Your task to perform on an android device: turn on showing notifications on the lock screen Image 0: 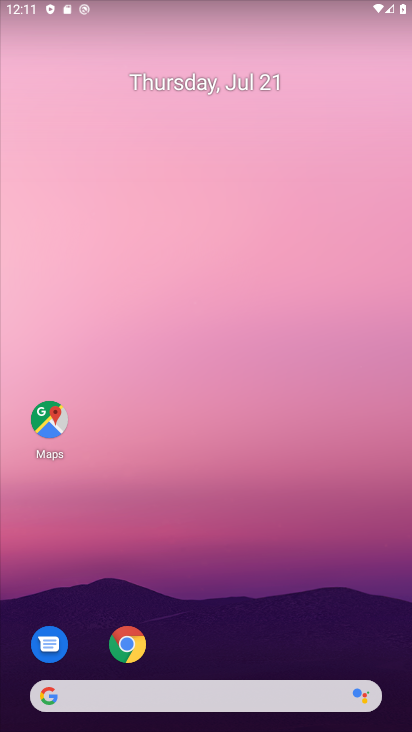
Step 0: press home button
Your task to perform on an android device: turn on showing notifications on the lock screen Image 1: 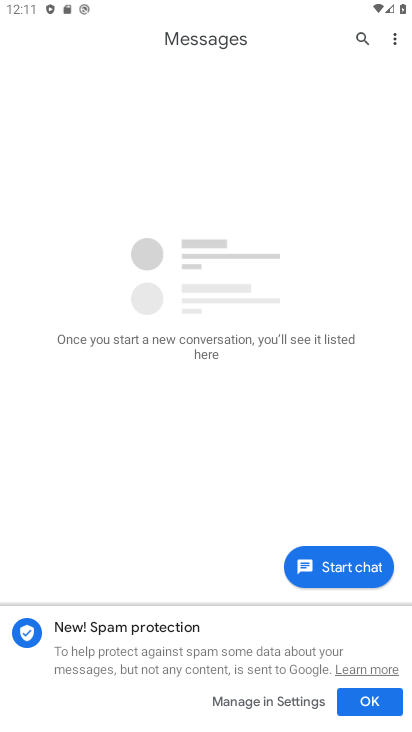
Step 1: press home button
Your task to perform on an android device: turn on showing notifications on the lock screen Image 2: 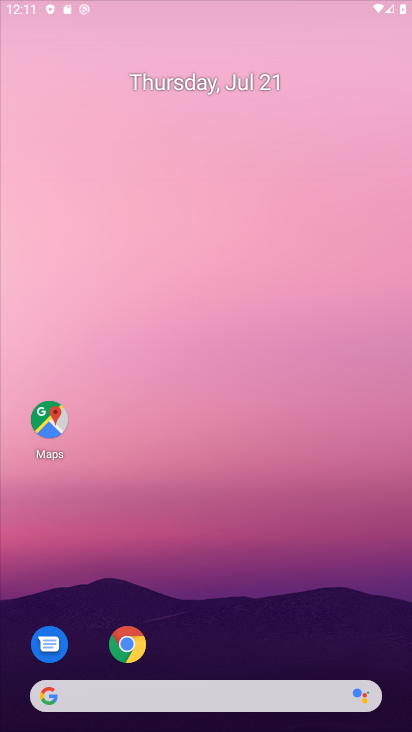
Step 2: press home button
Your task to perform on an android device: turn on showing notifications on the lock screen Image 3: 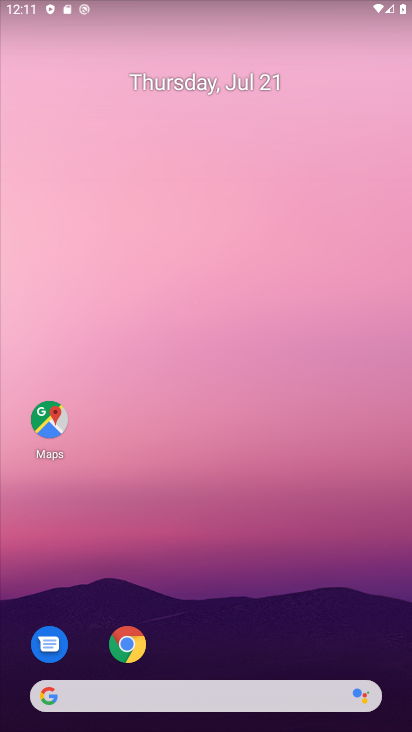
Step 3: press home button
Your task to perform on an android device: turn on showing notifications on the lock screen Image 4: 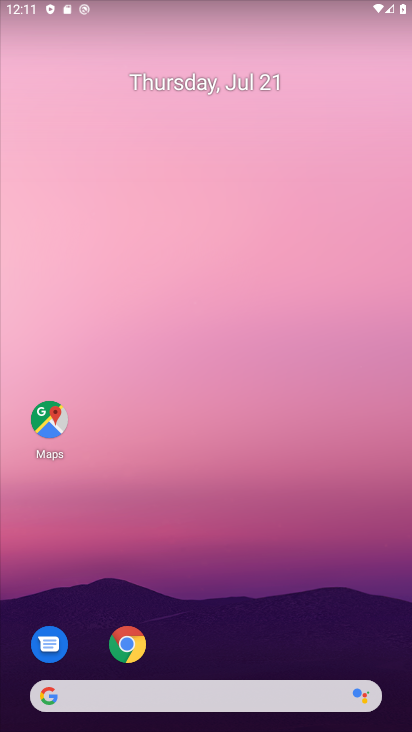
Step 4: drag from (243, 591) to (273, 0)
Your task to perform on an android device: turn on showing notifications on the lock screen Image 5: 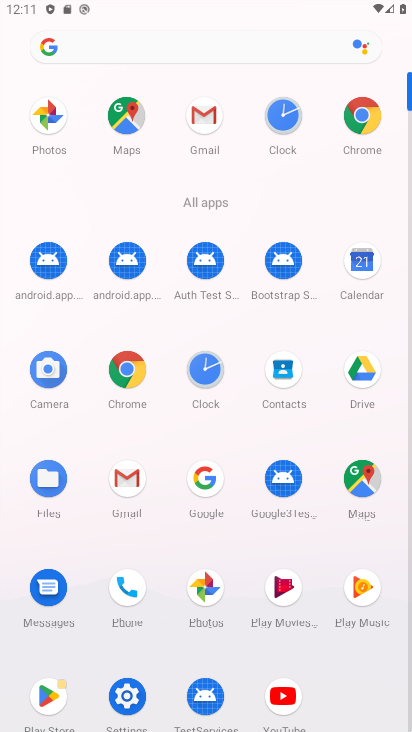
Step 5: click (127, 707)
Your task to perform on an android device: turn on showing notifications on the lock screen Image 6: 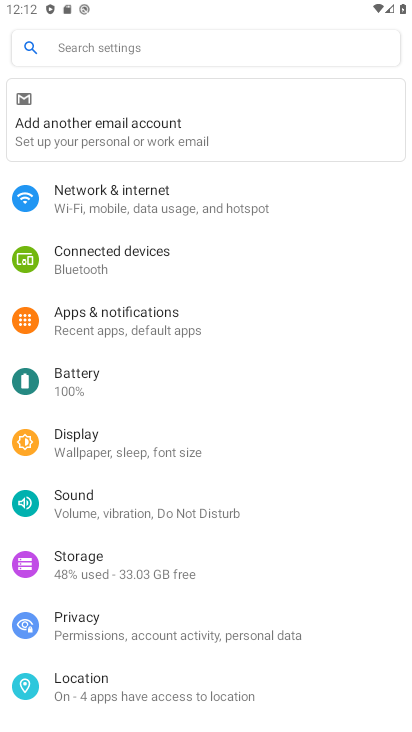
Step 6: click (202, 321)
Your task to perform on an android device: turn on showing notifications on the lock screen Image 7: 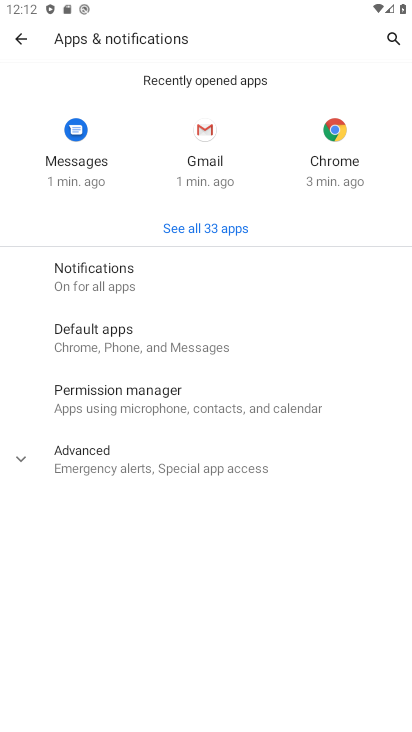
Step 7: click (182, 282)
Your task to perform on an android device: turn on showing notifications on the lock screen Image 8: 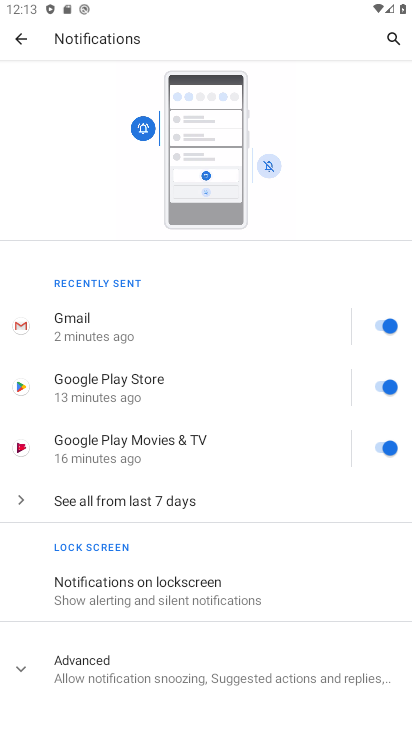
Step 8: click (192, 598)
Your task to perform on an android device: turn on showing notifications on the lock screen Image 9: 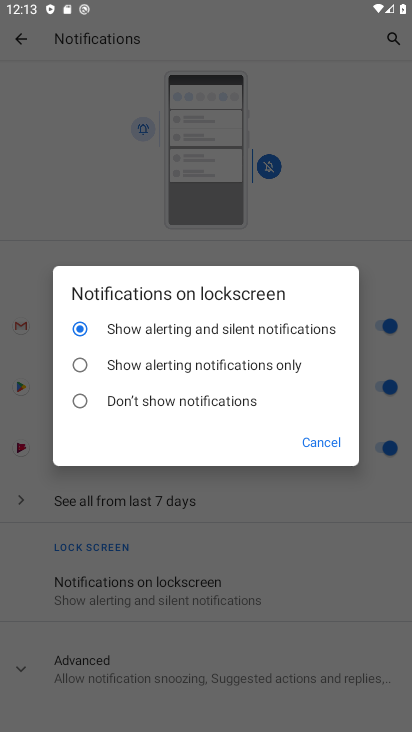
Step 9: click (302, 330)
Your task to perform on an android device: turn on showing notifications on the lock screen Image 10: 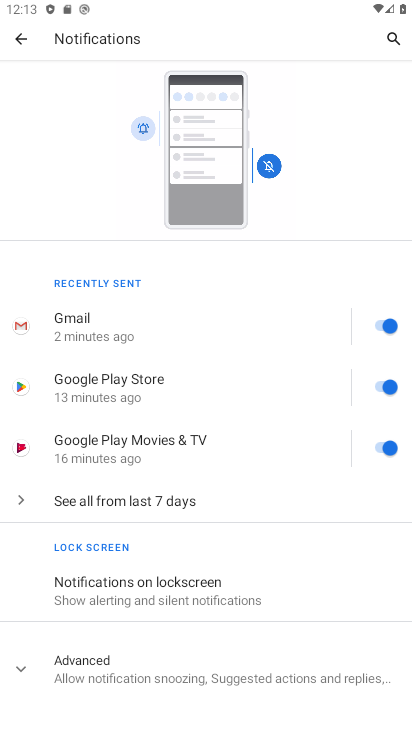
Step 10: task complete